Your task to perform on an android device: turn off wifi Image 0: 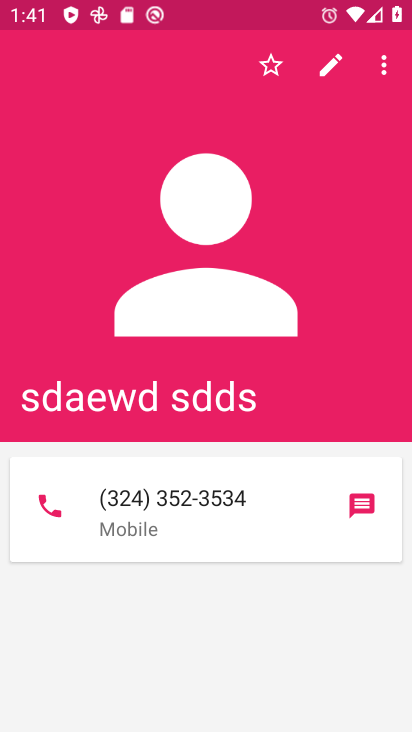
Step 0: press home button
Your task to perform on an android device: turn off wifi Image 1: 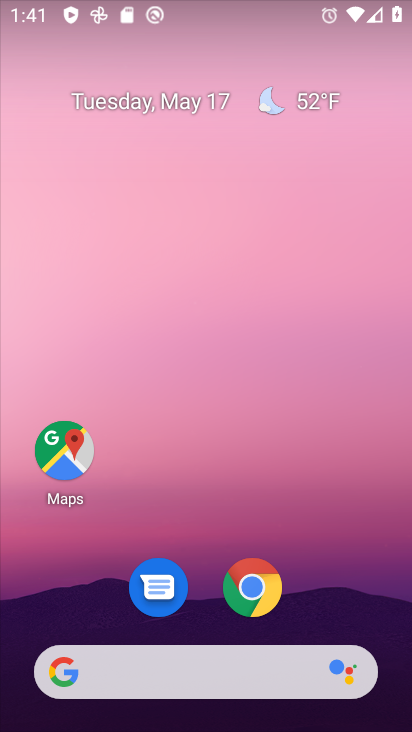
Step 1: drag from (373, 551) to (326, 122)
Your task to perform on an android device: turn off wifi Image 2: 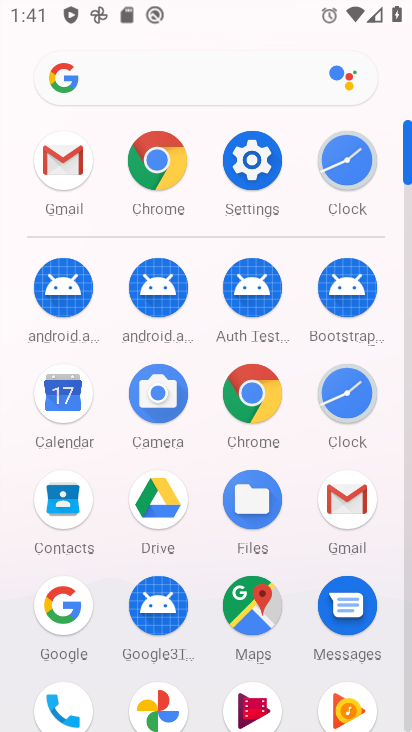
Step 2: click (246, 175)
Your task to perform on an android device: turn off wifi Image 3: 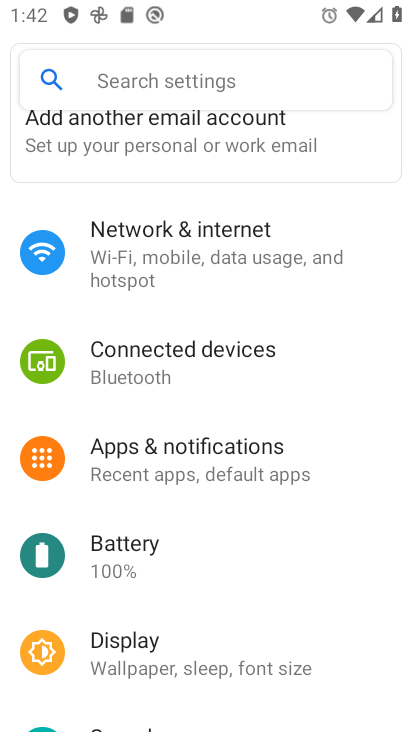
Step 3: drag from (246, 175) to (144, 377)
Your task to perform on an android device: turn off wifi Image 4: 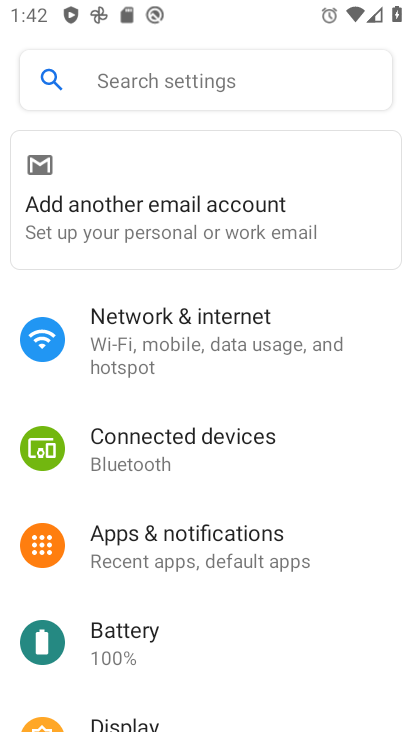
Step 4: click (156, 327)
Your task to perform on an android device: turn off wifi Image 5: 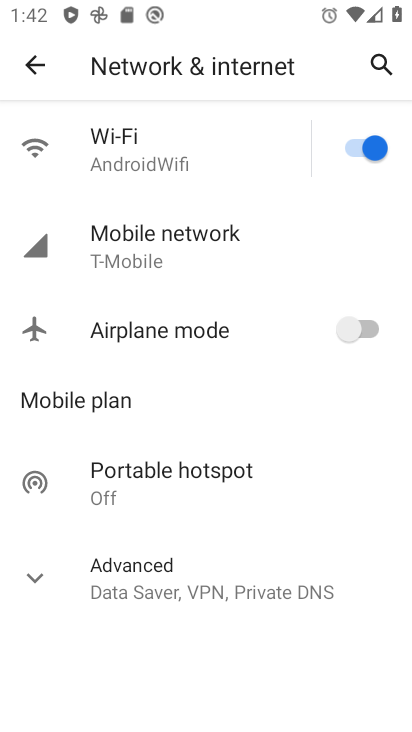
Step 5: click (376, 131)
Your task to perform on an android device: turn off wifi Image 6: 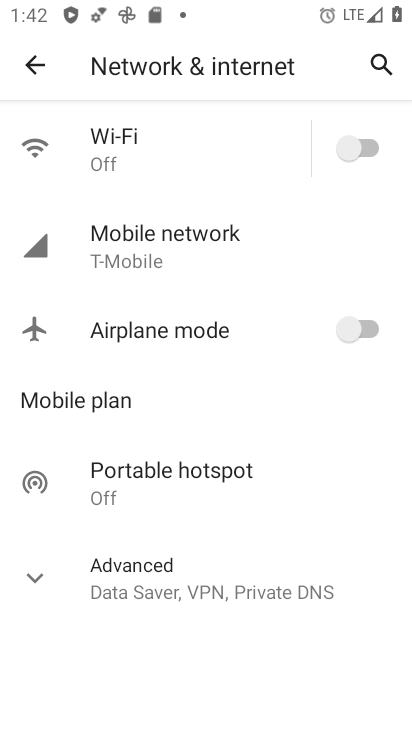
Step 6: task complete